Your task to perform on an android device: turn notification dots on Image 0: 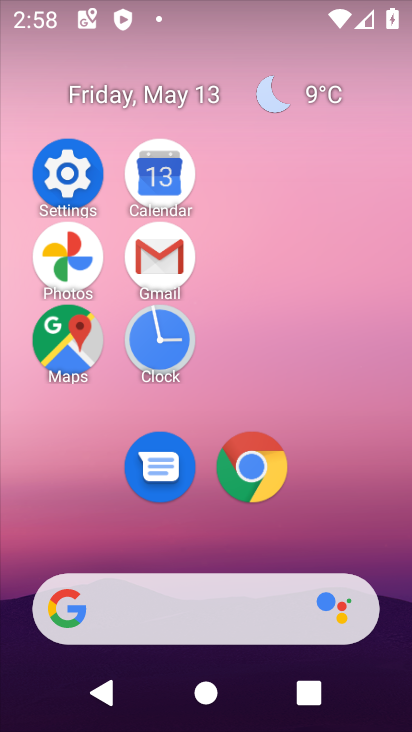
Step 0: click (82, 190)
Your task to perform on an android device: turn notification dots on Image 1: 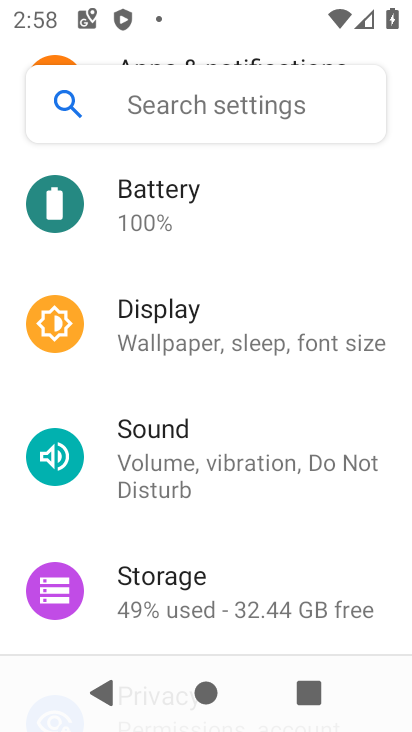
Step 1: drag from (321, 222) to (290, 609)
Your task to perform on an android device: turn notification dots on Image 2: 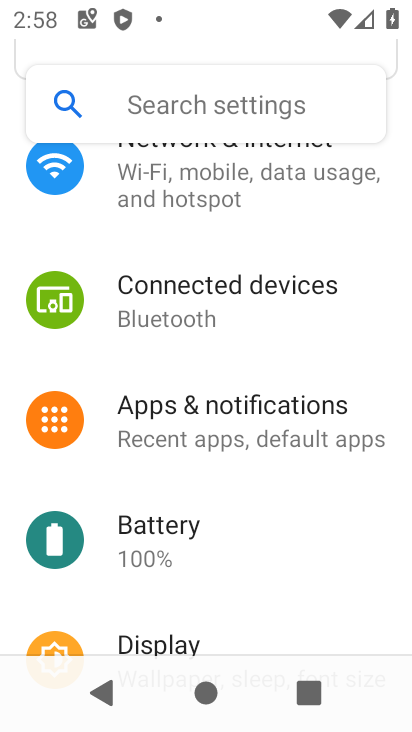
Step 2: click (224, 443)
Your task to perform on an android device: turn notification dots on Image 3: 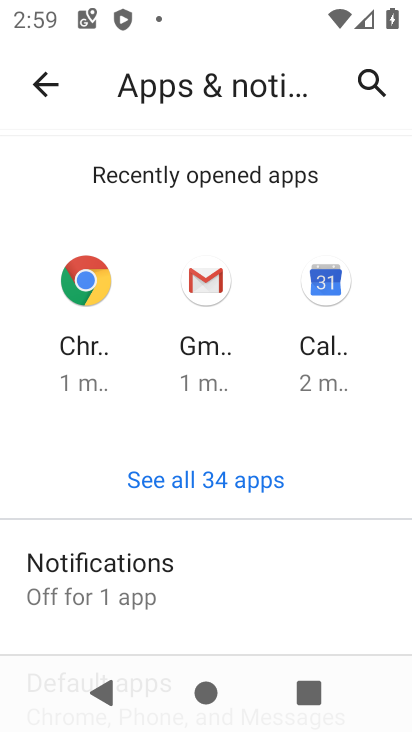
Step 3: click (182, 595)
Your task to perform on an android device: turn notification dots on Image 4: 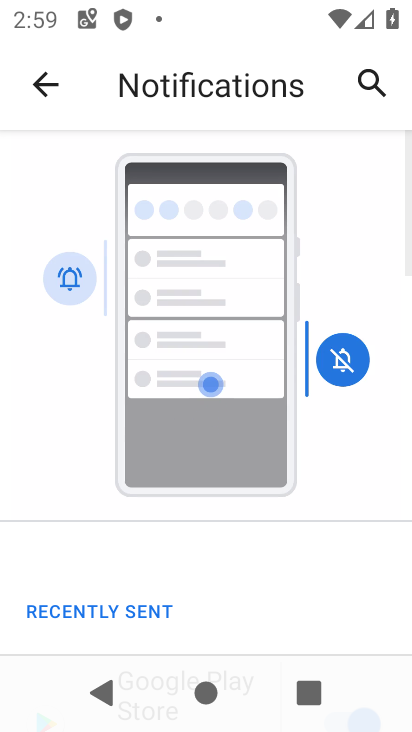
Step 4: drag from (182, 595) to (181, 217)
Your task to perform on an android device: turn notification dots on Image 5: 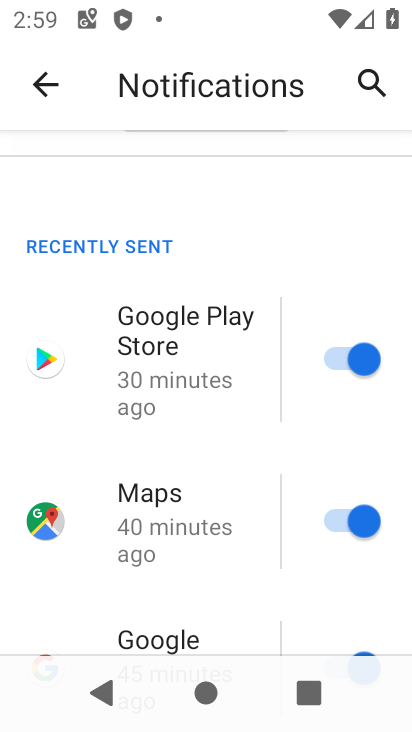
Step 5: drag from (198, 599) to (199, 178)
Your task to perform on an android device: turn notification dots on Image 6: 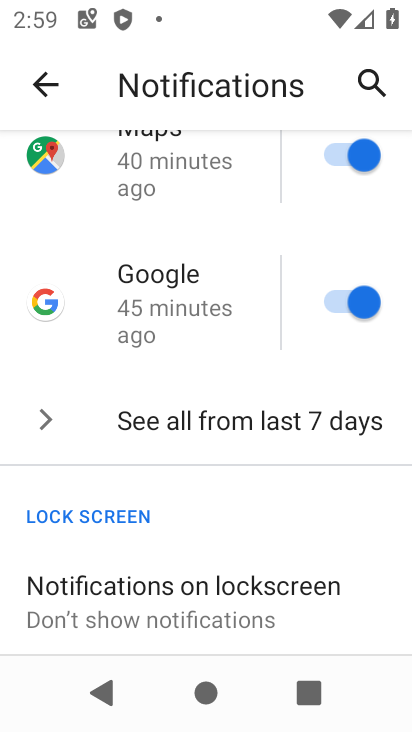
Step 6: drag from (260, 550) to (224, 190)
Your task to perform on an android device: turn notification dots on Image 7: 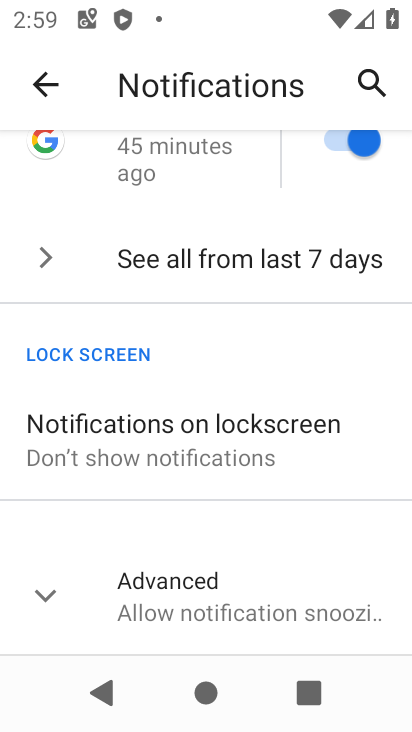
Step 7: click (183, 599)
Your task to perform on an android device: turn notification dots on Image 8: 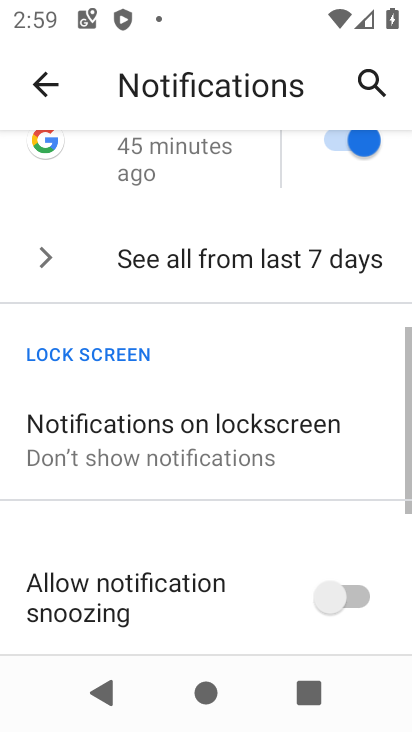
Step 8: task complete